Your task to perform on an android device: add a label to a message in the gmail app Image 0: 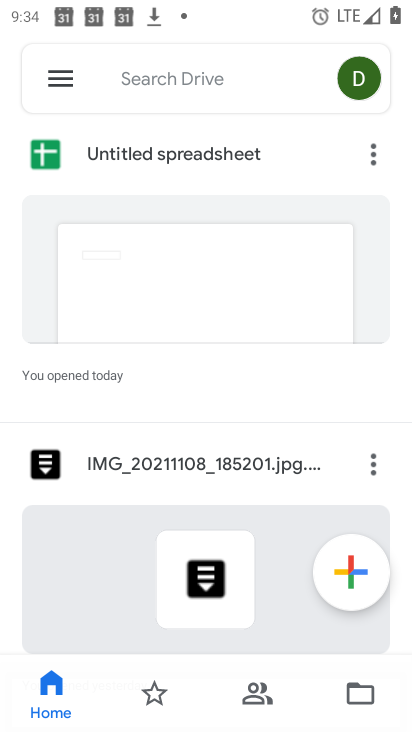
Step 0: press home button
Your task to perform on an android device: add a label to a message in the gmail app Image 1: 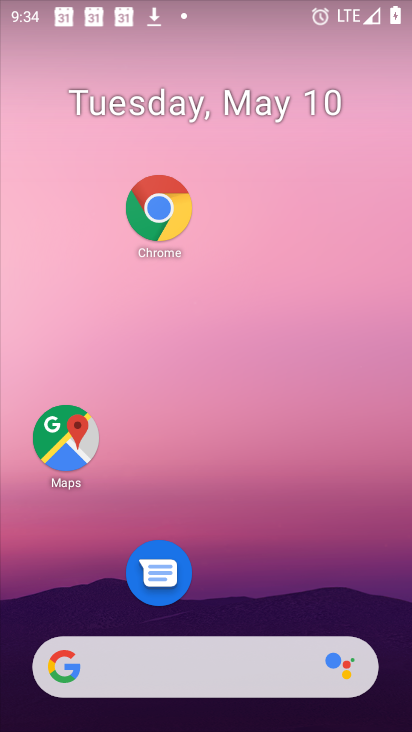
Step 1: drag from (345, 690) to (362, 120)
Your task to perform on an android device: add a label to a message in the gmail app Image 2: 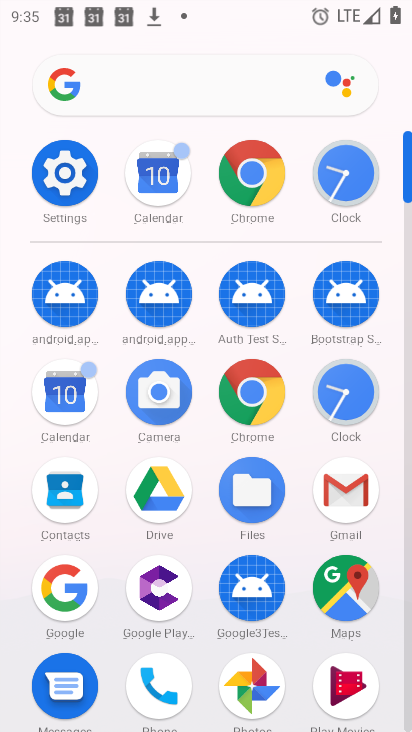
Step 2: click (347, 509)
Your task to perform on an android device: add a label to a message in the gmail app Image 3: 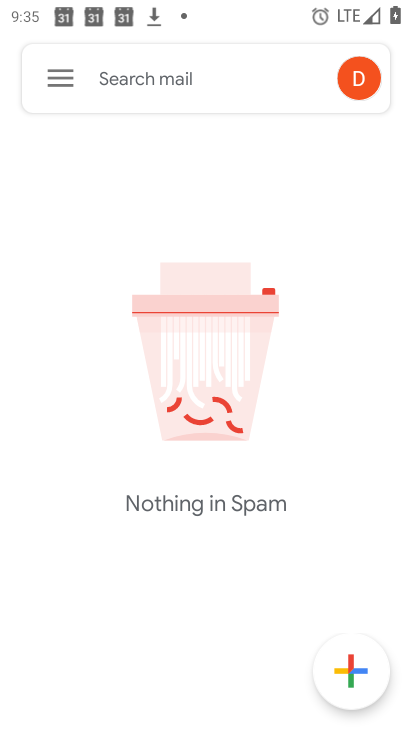
Step 3: click (49, 85)
Your task to perform on an android device: add a label to a message in the gmail app Image 4: 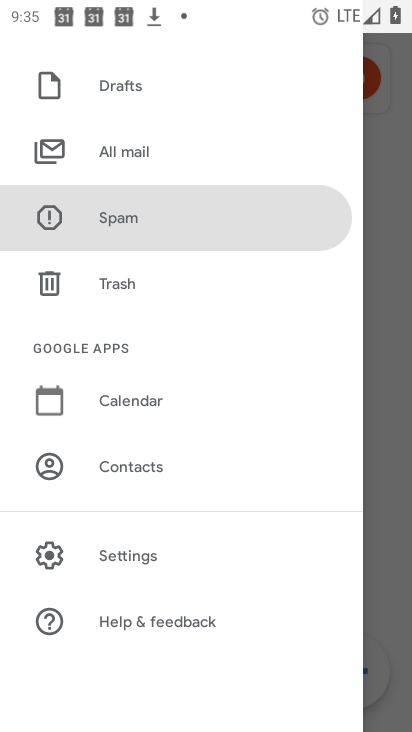
Step 4: click (160, 551)
Your task to perform on an android device: add a label to a message in the gmail app Image 5: 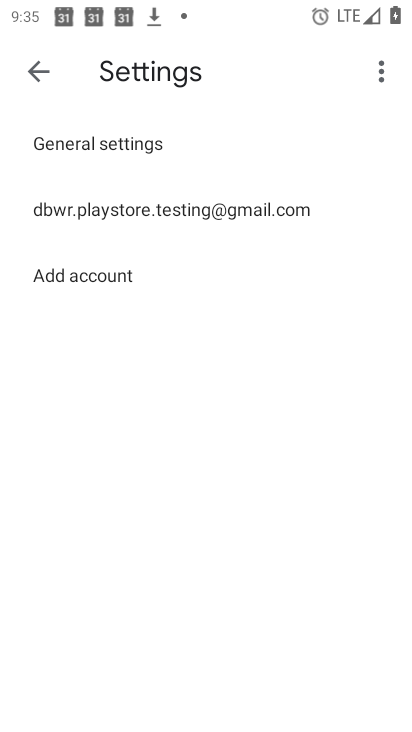
Step 5: click (123, 210)
Your task to perform on an android device: add a label to a message in the gmail app Image 6: 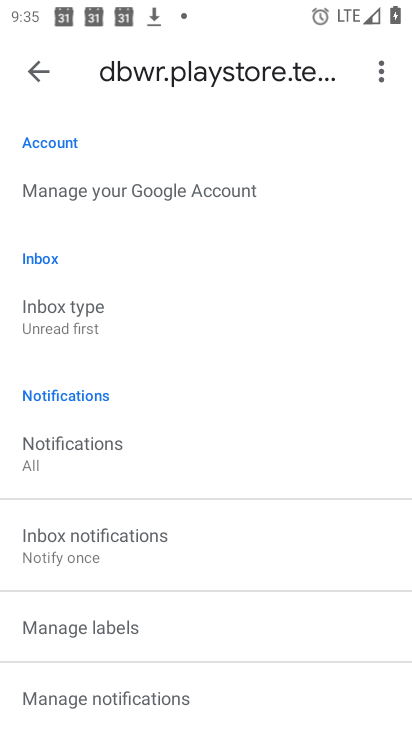
Step 6: click (132, 616)
Your task to perform on an android device: add a label to a message in the gmail app Image 7: 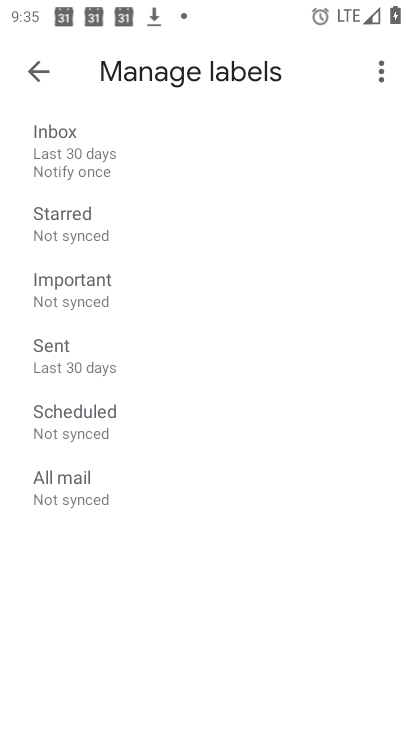
Step 7: task complete